Your task to perform on an android device: toggle wifi Image 0: 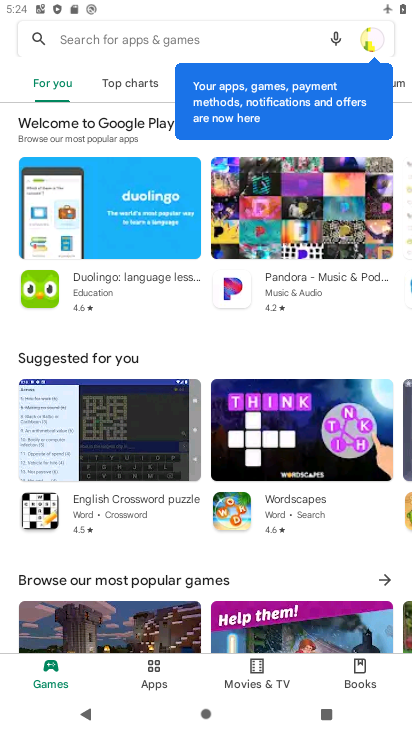
Step 0: press back button
Your task to perform on an android device: toggle wifi Image 1: 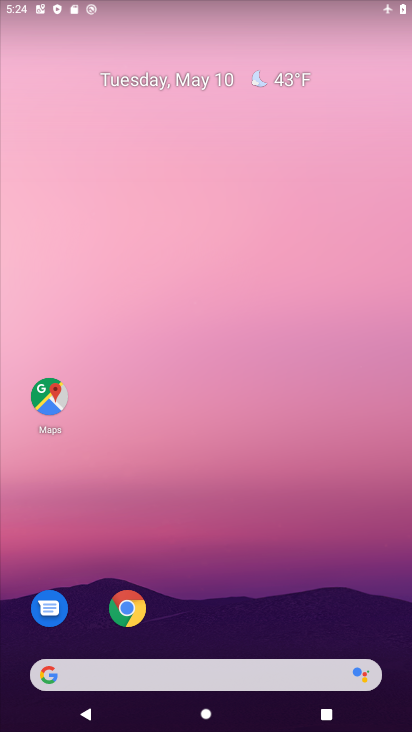
Step 1: drag from (74, 6) to (148, 627)
Your task to perform on an android device: toggle wifi Image 2: 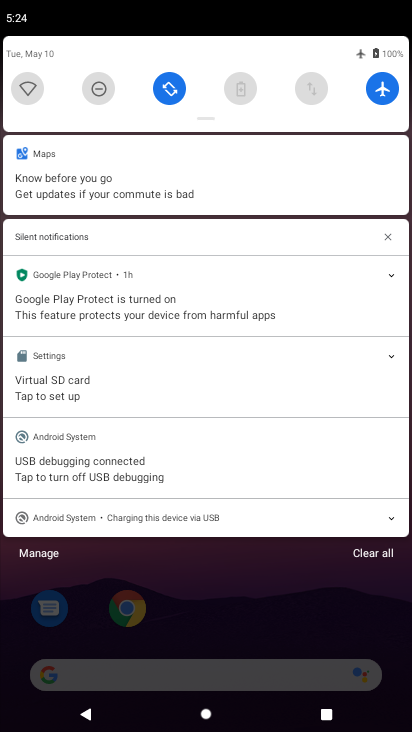
Step 2: click (30, 81)
Your task to perform on an android device: toggle wifi Image 3: 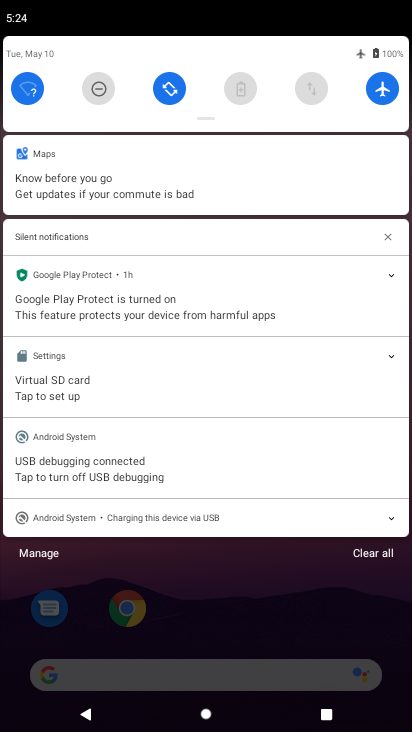
Step 3: task complete